Your task to perform on an android device: Open sound settings Image 0: 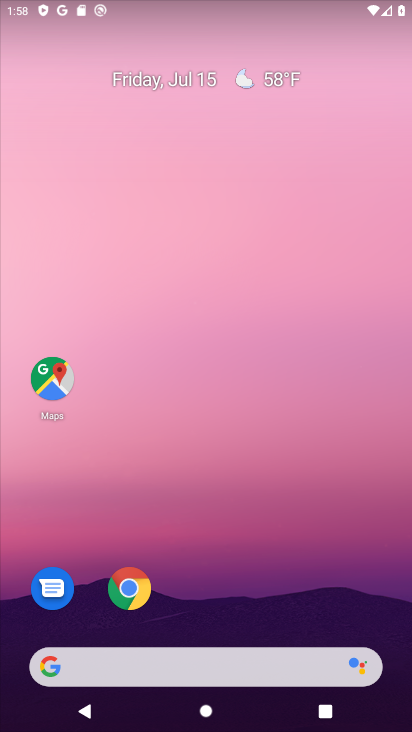
Step 0: drag from (305, 636) to (270, 303)
Your task to perform on an android device: Open sound settings Image 1: 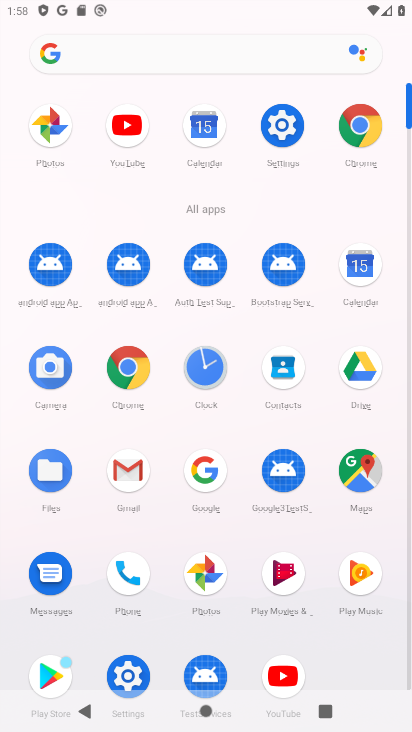
Step 1: click (300, 132)
Your task to perform on an android device: Open sound settings Image 2: 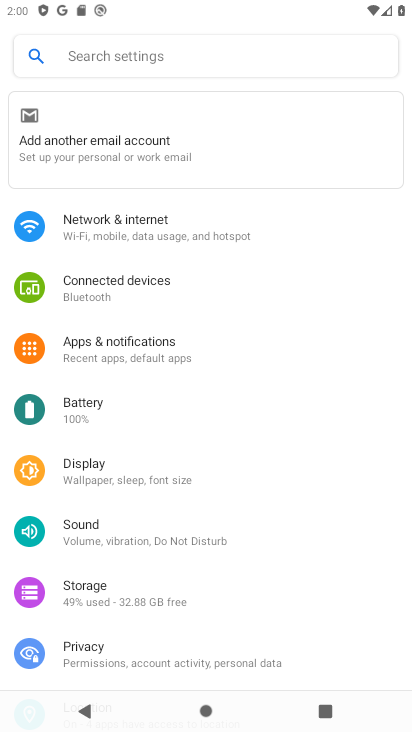
Step 2: click (101, 523)
Your task to perform on an android device: Open sound settings Image 3: 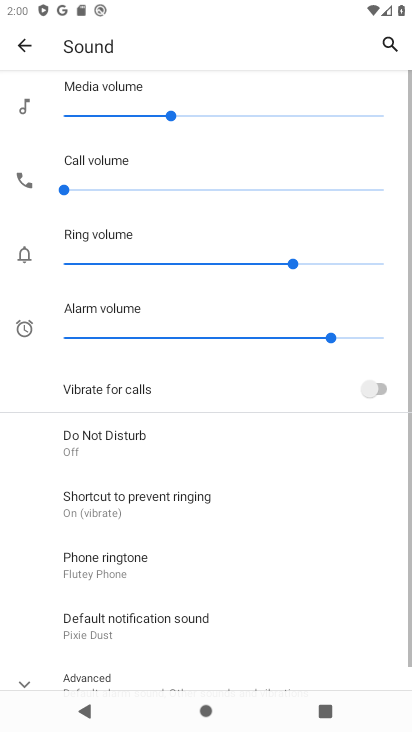
Step 3: task complete